Your task to perform on an android device: change alarm snooze length Image 0: 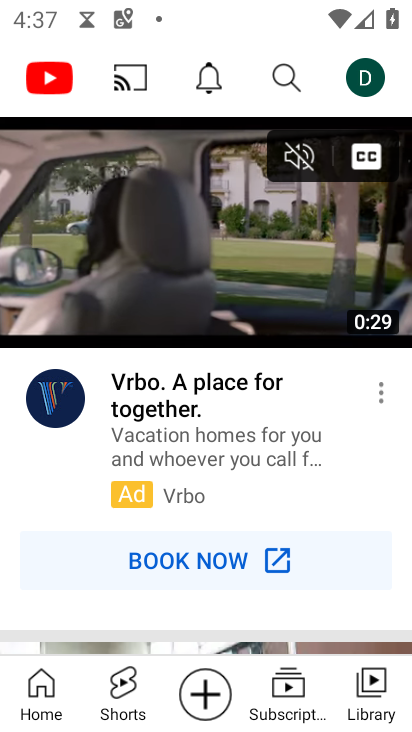
Step 0: press back button
Your task to perform on an android device: change alarm snooze length Image 1: 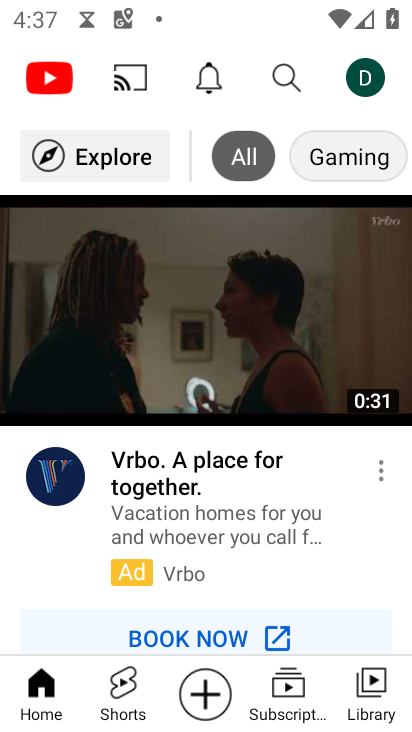
Step 1: press back button
Your task to perform on an android device: change alarm snooze length Image 2: 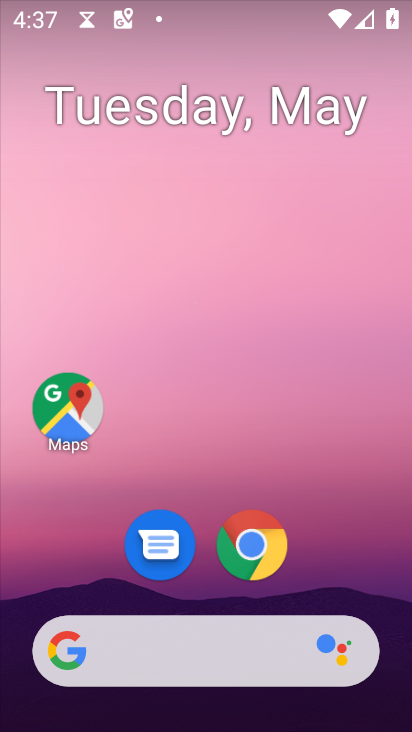
Step 2: drag from (320, 583) to (253, 152)
Your task to perform on an android device: change alarm snooze length Image 3: 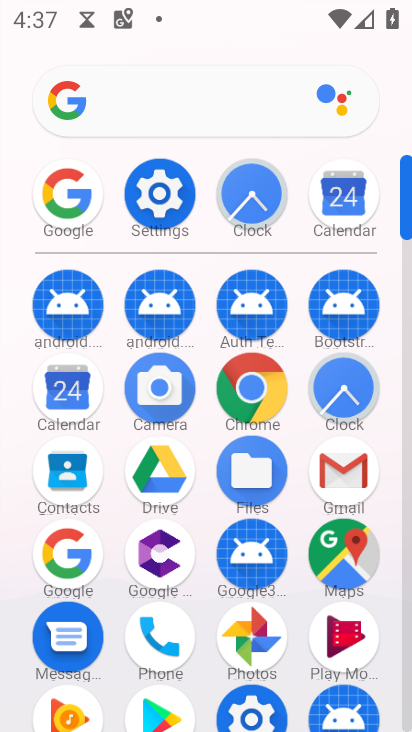
Step 3: click (250, 192)
Your task to perform on an android device: change alarm snooze length Image 4: 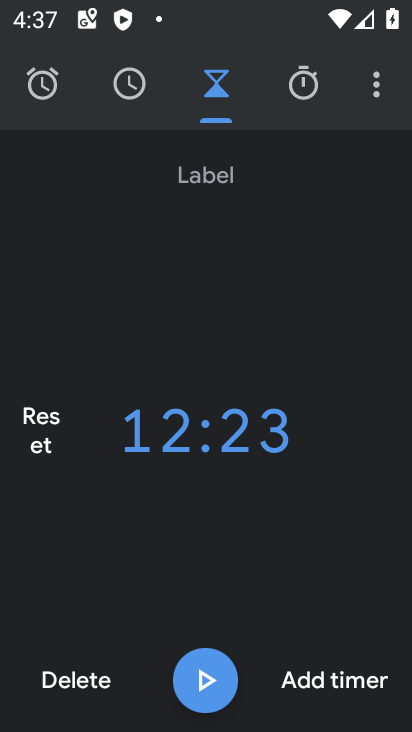
Step 4: click (376, 84)
Your task to perform on an android device: change alarm snooze length Image 5: 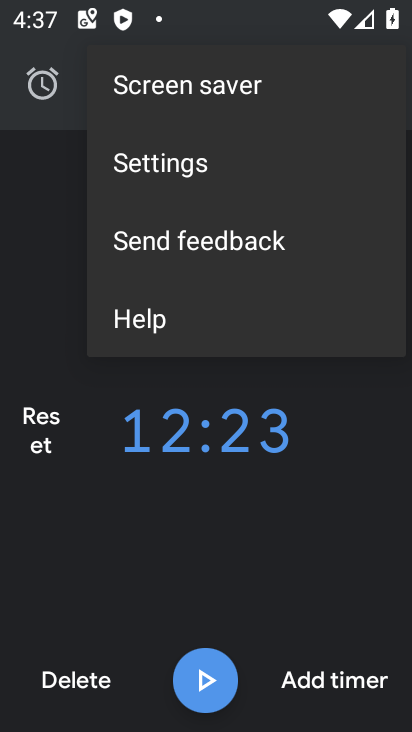
Step 5: click (153, 153)
Your task to perform on an android device: change alarm snooze length Image 6: 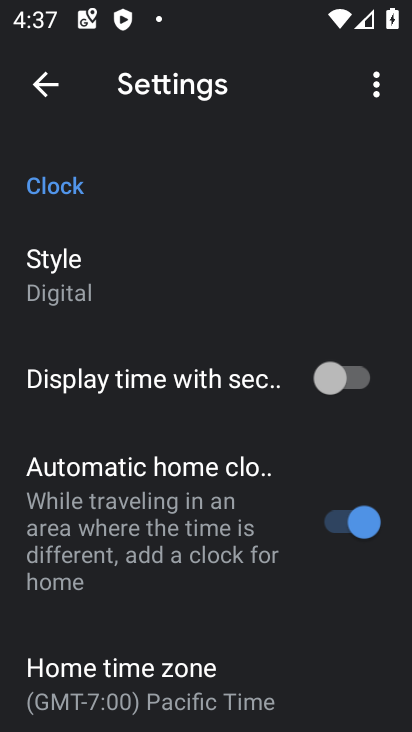
Step 6: drag from (168, 615) to (259, 344)
Your task to perform on an android device: change alarm snooze length Image 7: 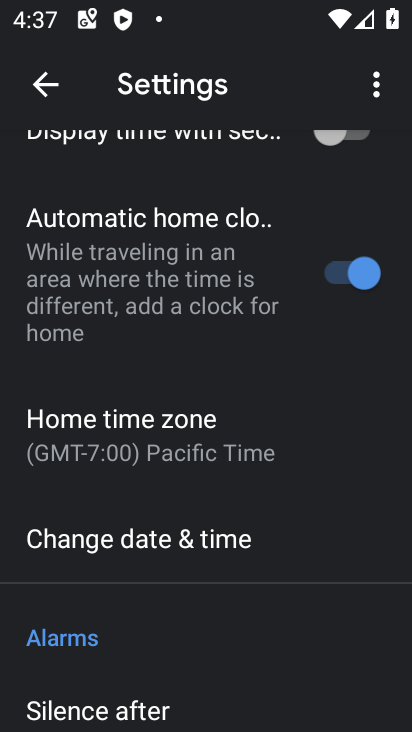
Step 7: drag from (138, 506) to (271, 266)
Your task to perform on an android device: change alarm snooze length Image 8: 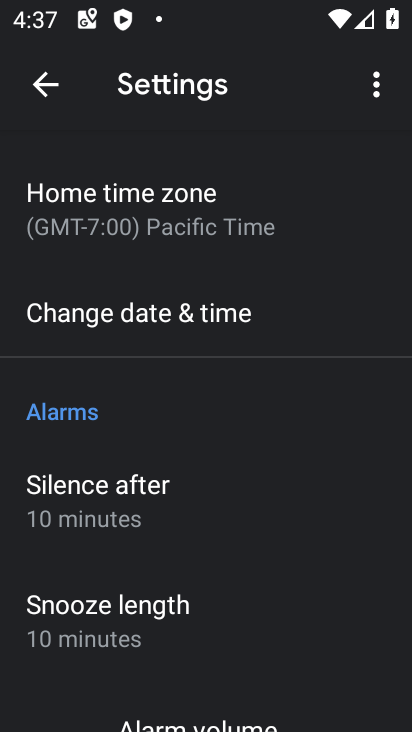
Step 8: click (122, 612)
Your task to perform on an android device: change alarm snooze length Image 9: 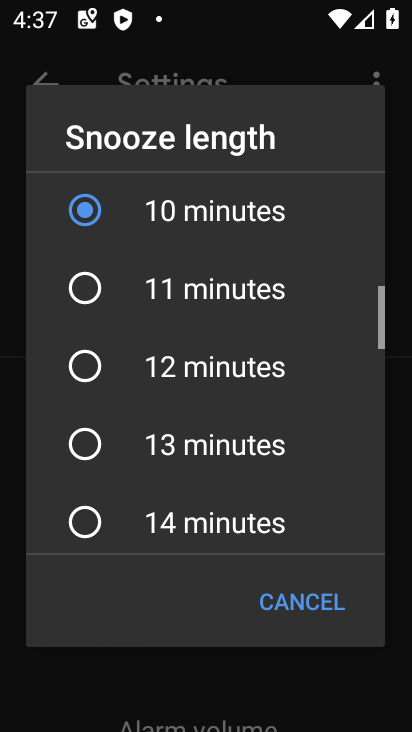
Step 9: drag from (185, 510) to (239, 332)
Your task to perform on an android device: change alarm snooze length Image 10: 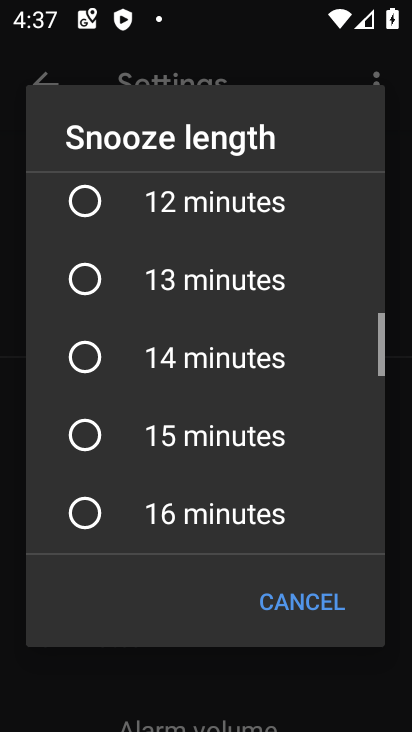
Step 10: drag from (203, 477) to (246, 276)
Your task to perform on an android device: change alarm snooze length Image 11: 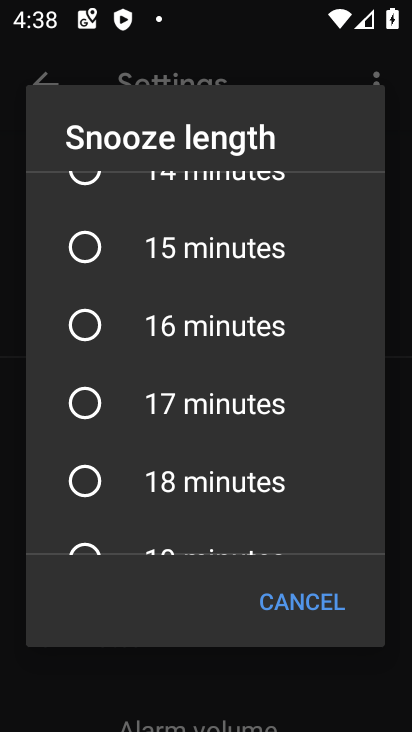
Step 11: drag from (201, 502) to (243, 294)
Your task to perform on an android device: change alarm snooze length Image 12: 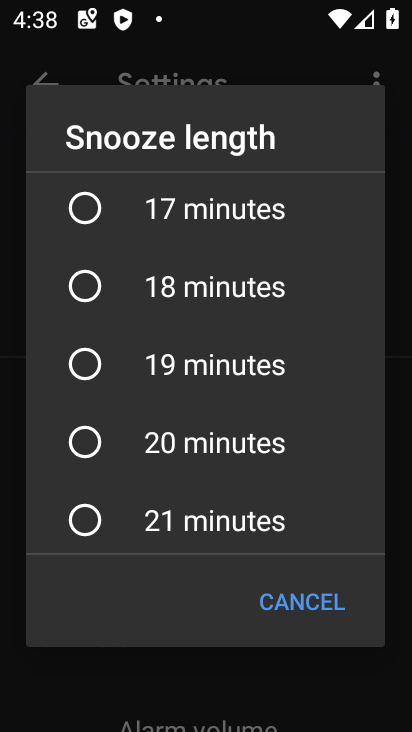
Step 12: drag from (199, 481) to (234, 266)
Your task to perform on an android device: change alarm snooze length Image 13: 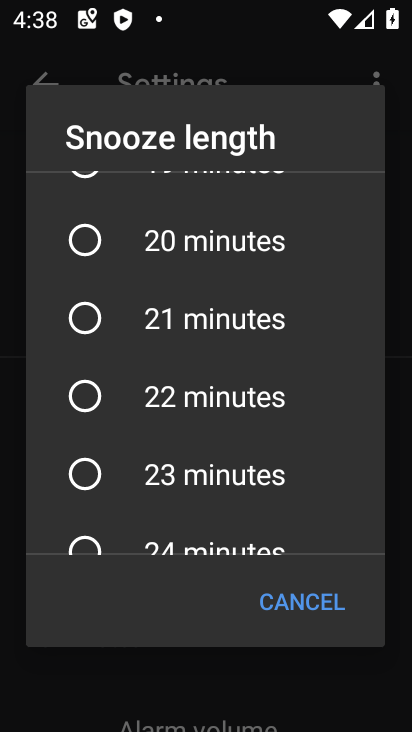
Step 13: drag from (223, 497) to (268, 271)
Your task to perform on an android device: change alarm snooze length Image 14: 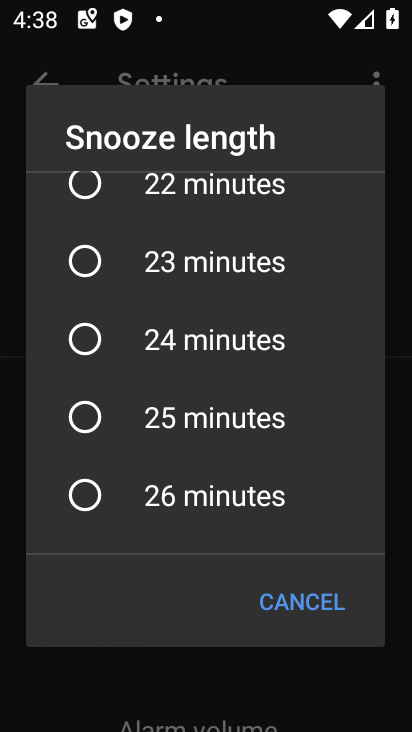
Step 14: drag from (213, 458) to (257, 255)
Your task to perform on an android device: change alarm snooze length Image 15: 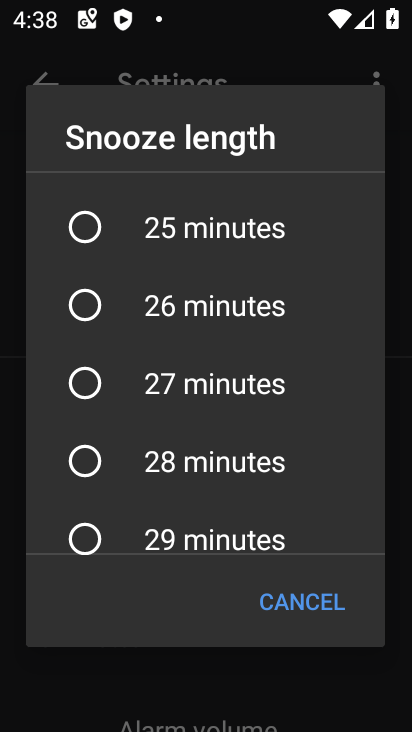
Step 15: drag from (193, 503) to (242, 288)
Your task to perform on an android device: change alarm snooze length Image 16: 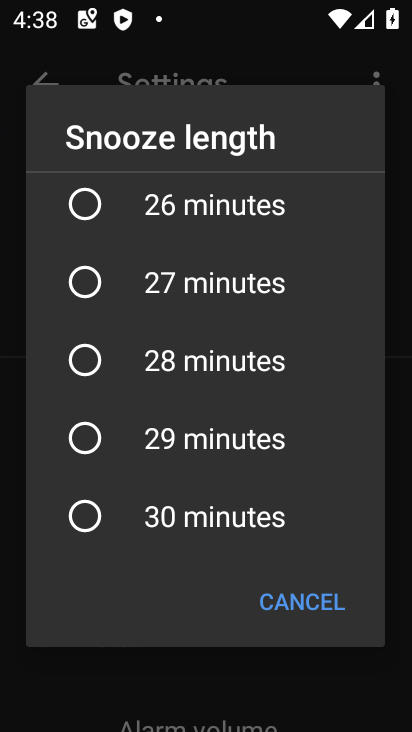
Step 16: drag from (195, 483) to (274, 318)
Your task to perform on an android device: change alarm snooze length Image 17: 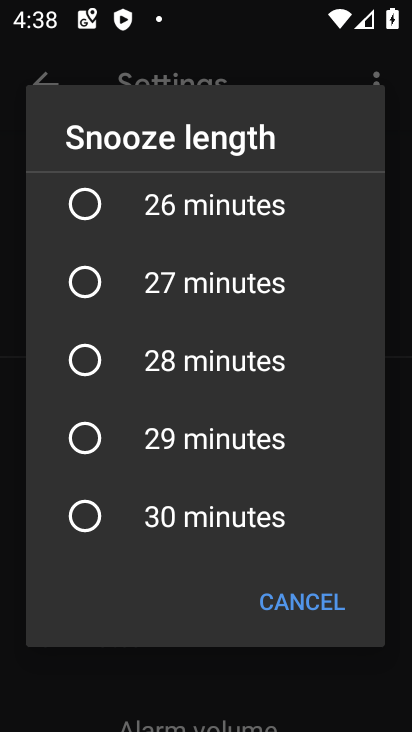
Step 17: click (98, 521)
Your task to perform on an android device: change alarm snooze length Image 18: 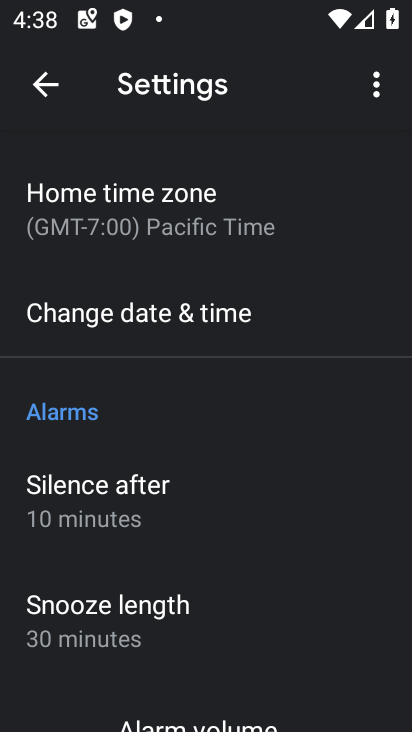
Step 18: task complete